Your task to perform on an android device: Go to CNN.com Image 0: 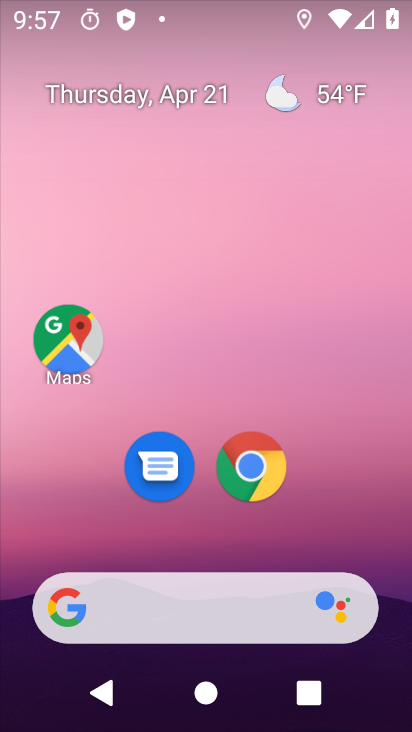
Step 0: drag from (375, 522) to (352, 169)
Your task to perform on an android device: Go to CNN.com Image 1: 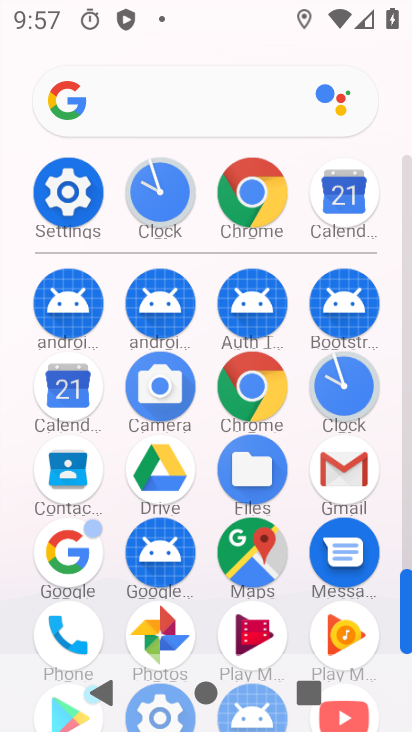
Step 1: drag from (297, 511) to (304, 317)
Your task to perform on an android device: Go to CNN.com Image 2: 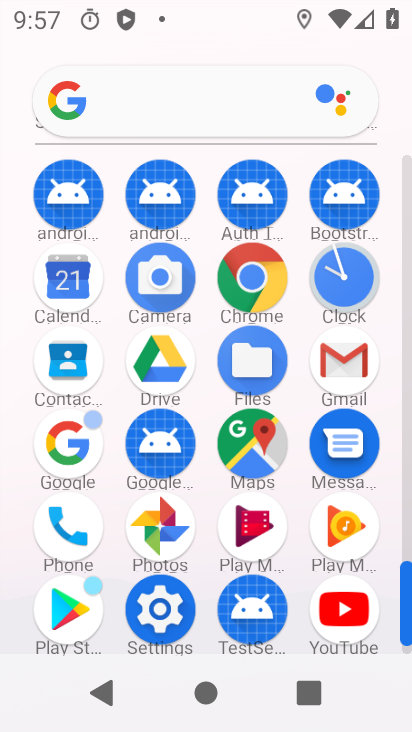
Step 2: click (258, 281)
Your task to perform on an android device: Go to CNN.com Image 3: 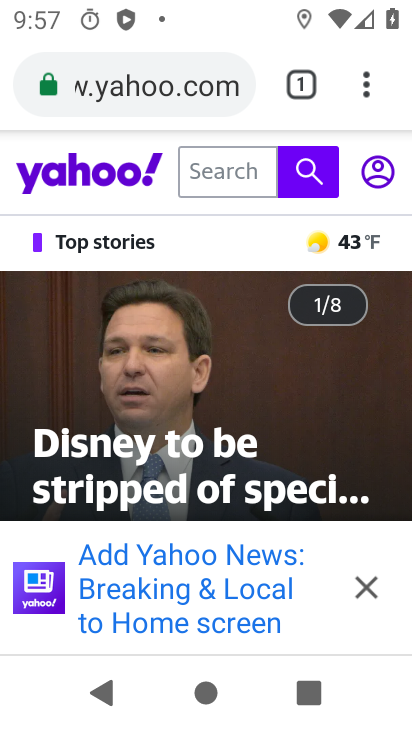
Step 3: click (196, 93)
Your task to perform on an android device: Go to CNN.com Image 4: 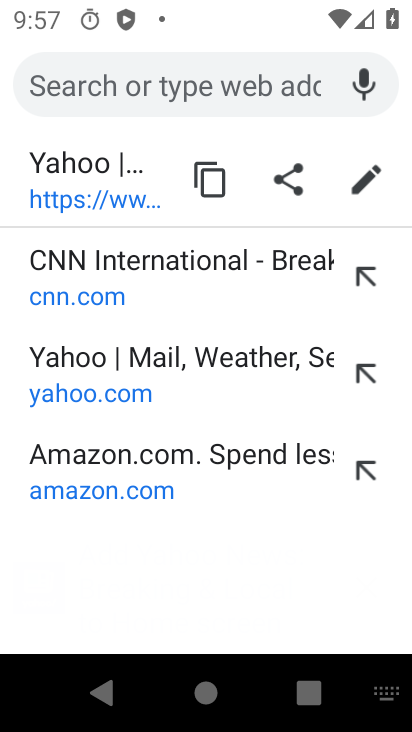
Step 4: click (161, 84)
Your task to perform on an android device: Go to CNN.com Image 5: 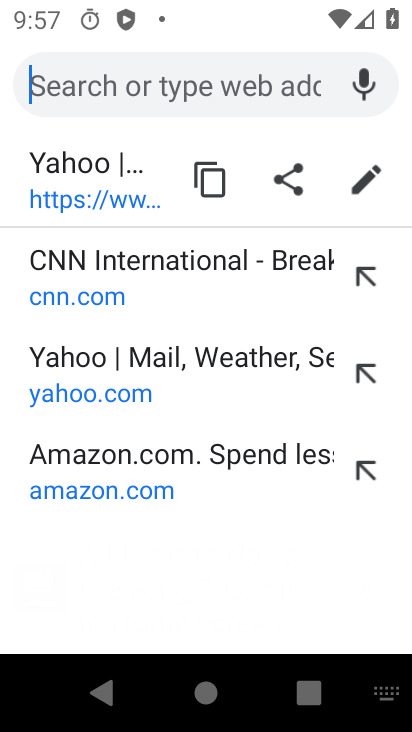
Step 5: type "cnn.com"
Your task to perform on an android device: Go to CNN.com Image 6: 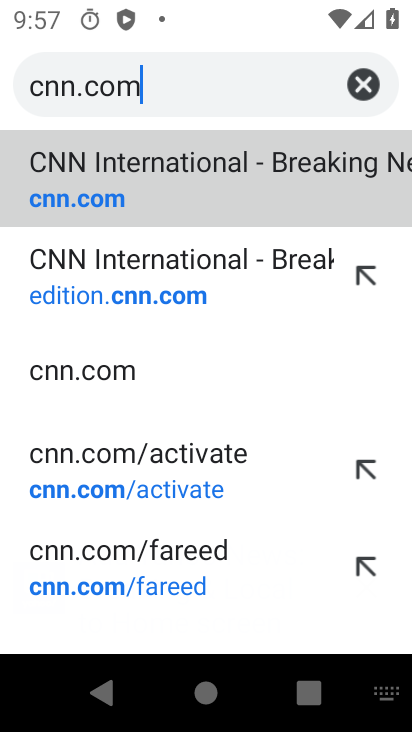
Step 6: click (102, 167)
Your task to perform on an android device: Go to CNN.com Image 7: 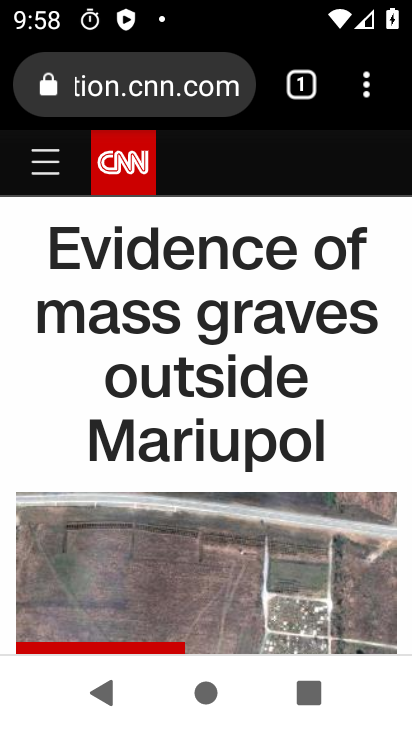
Step 7: task complete